Your task to perform on an android device: allow cookies in the chrome app Image 0: 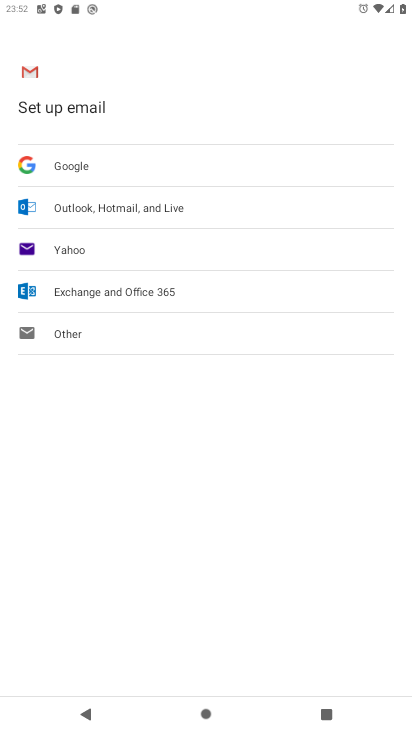
Step 0: press back button
Your task to perform on an android device: allow cookies in the chrome app Image 1: 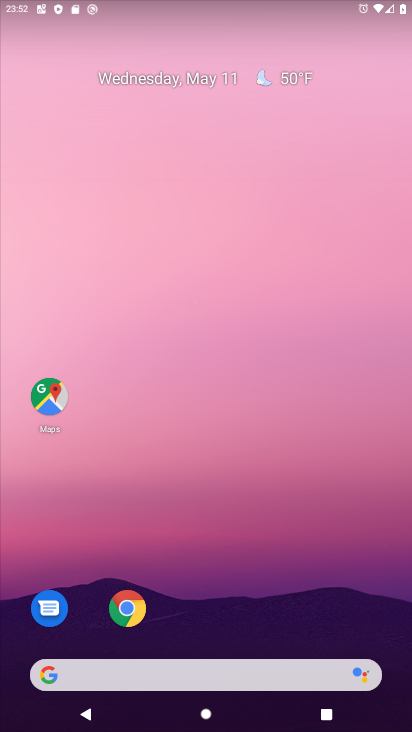
Step 1: click (127, 609)
Your task to perform on an android device: allow cookies in the chrome app Image 2: 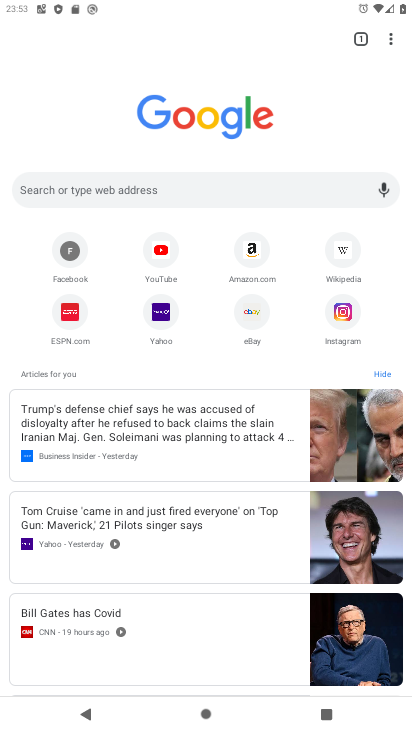
Step 2: click (393, 34)
Your task to perform on an android device: allow cookies in the chrome app Image 3: 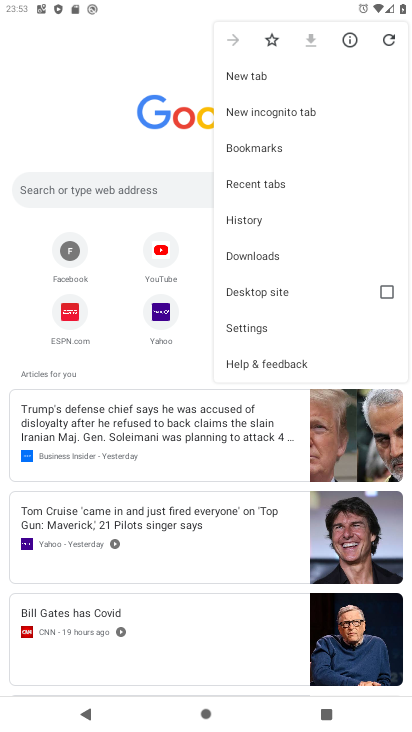
Step 3: click (253, 326)
Your task to perform on an android device: allow cookies in the chrome app Image 4: 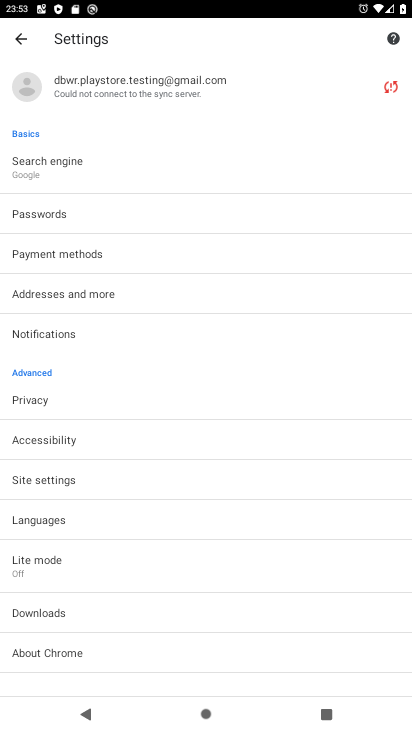
Step 4: click (52, 483)
Your task to perform on an android device: allow cookies in the chrome app Image 5: 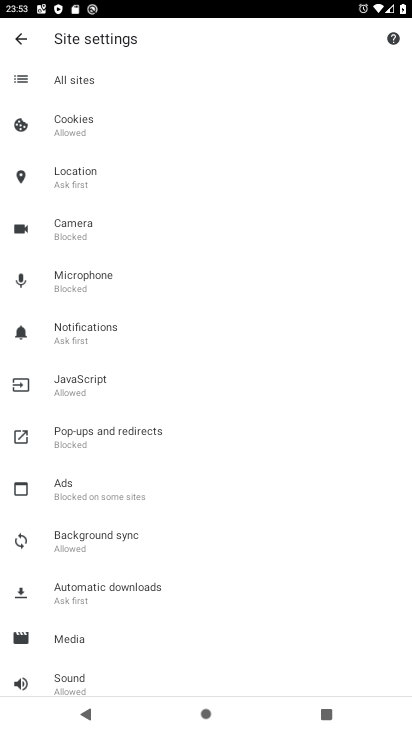
Step 5: click (63, 126)
Your task to perform on an android device: allow cookies in the chrome app Image 6: 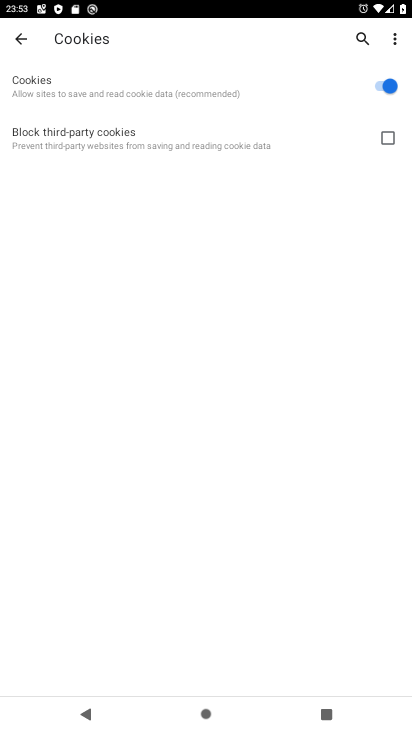
Step 6: click (385, 139)
Your task to perform on an android device: allow cookies in the chrome app Image 7: 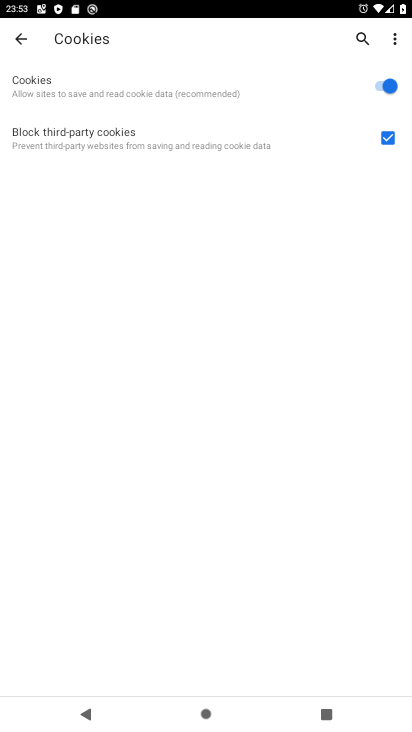
Step 7: task complete